Your task to perform on an android device: Turn off the flashlight Image 0: 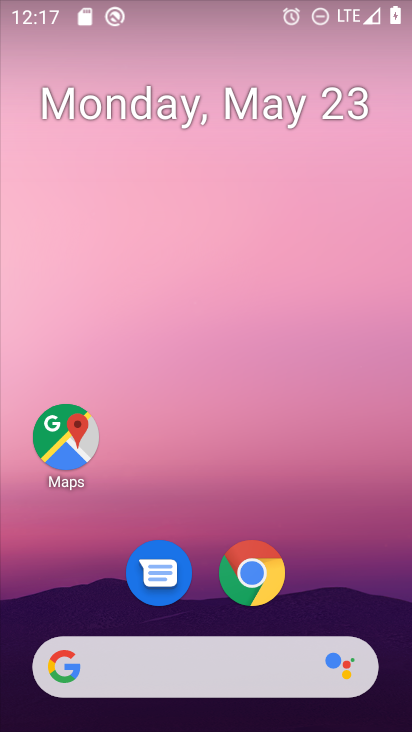
Step 0: drag from (310, 578) to (285, 71)
Your task to perform on an android device: Turn off the flashlight Image 1: 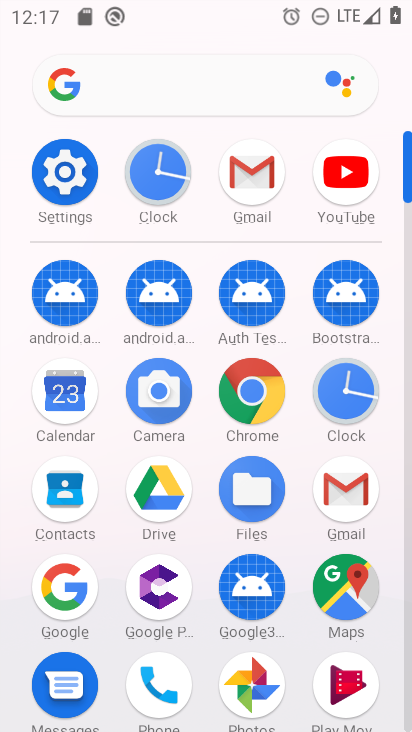
Step 1: click (69, 173)
Your task to perform on an android device: Turn off the flashlight Image 2: 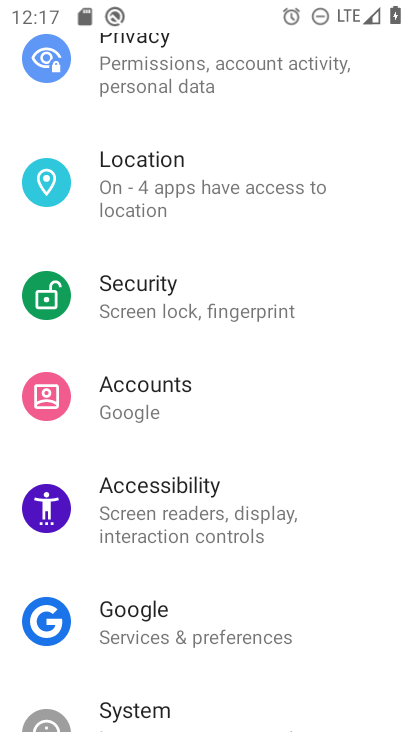
Step 2: task complete